Your task to perform on an android device: open device folders in google photos Image 0: 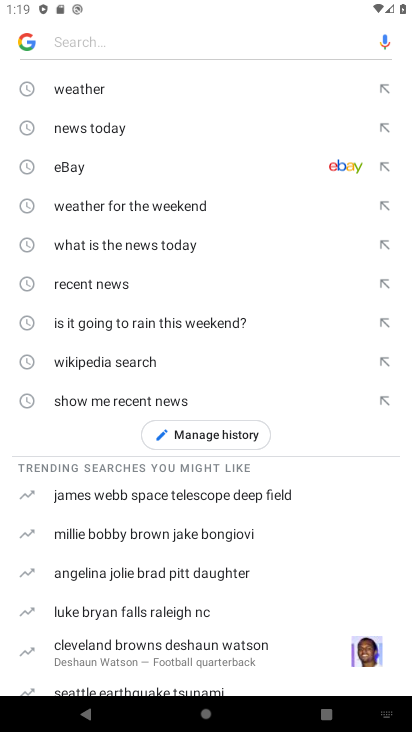
Step 0: press home button
Your task to perform on an android device: open device folders in google photos Image 1: 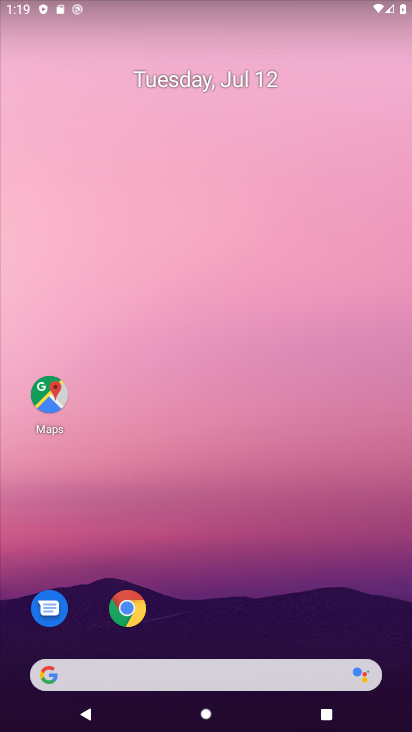
Step 1: drag from (243, 630) to (240, 17)
Your task to perform on an android device: open device folders in google photos Image 2: 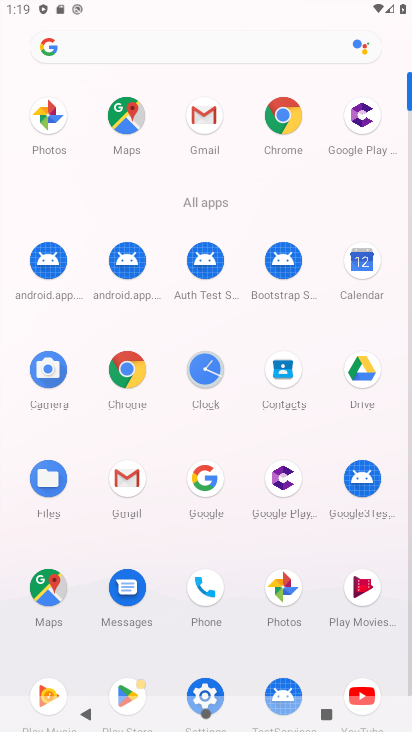
Step 2: click (284, 587)
Your task to perform on an android device: open device folders in google photos Image 3: 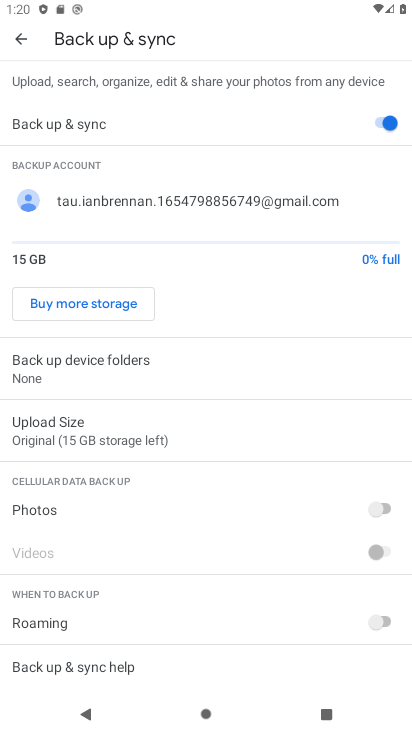
Step 3: click (27, 41)
Your task to perform on an android device: open device folders in google photos Image 4: 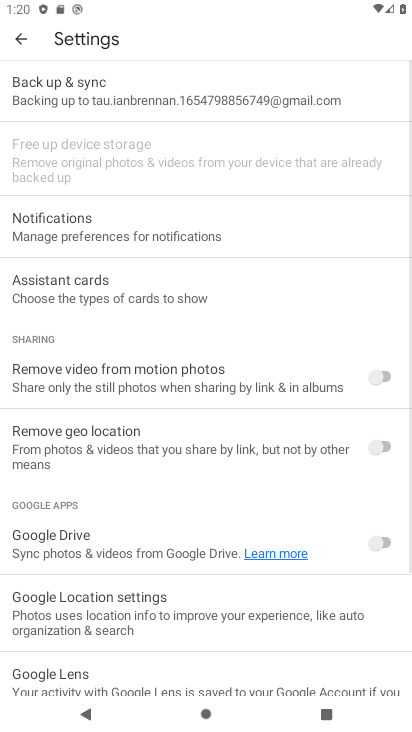
Step 4: press home button
Your task to perform on an android device: open device folders in google photos Image 5: 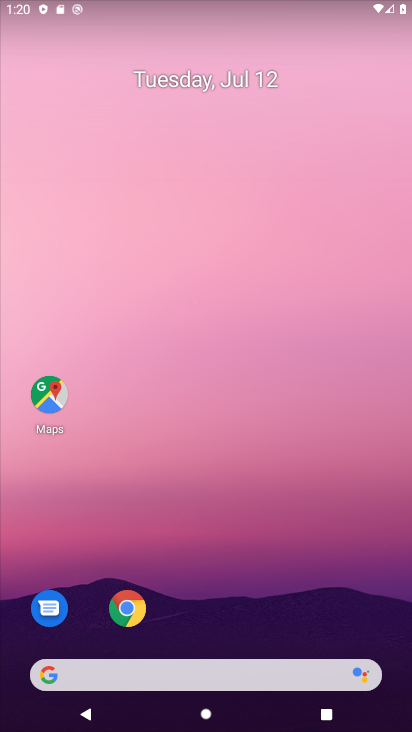
Step 5: drag from (230, 600) to (165, 5)
Your task to perform on an android device: open device folders in google photos Image 6: 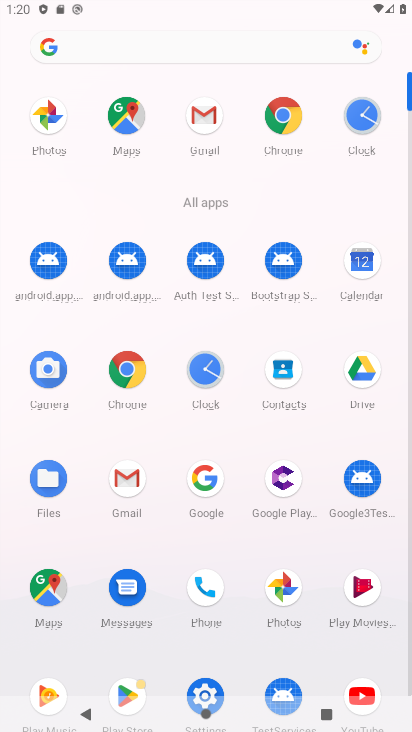
Step 6: click (284, 586)
Your task to perform on an android device: open device folders in google photos Image 7: 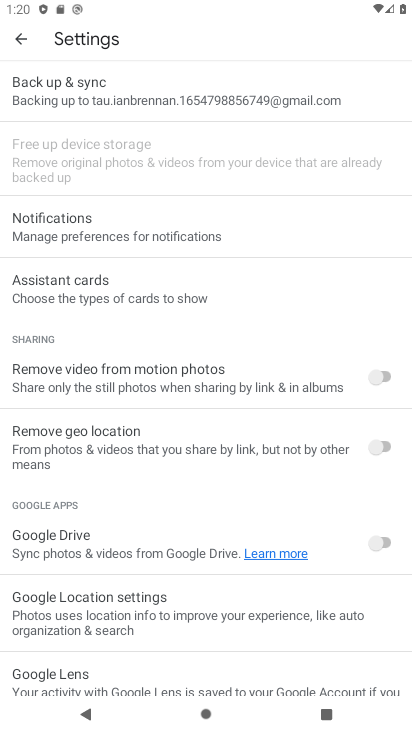
Step 7: drag from (203, 616) to (148, 308)
Your task to perform on an android device: open device folders in google photos Image 8: 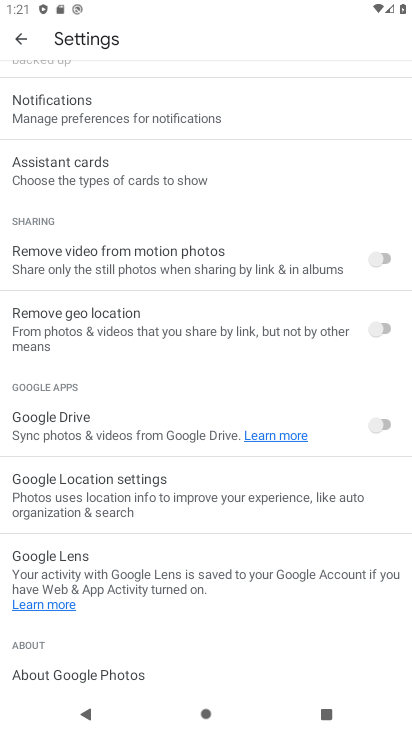
Step 8: click (21, 32)
Your task to perform on an android device: open device folders in google photos Image 9: 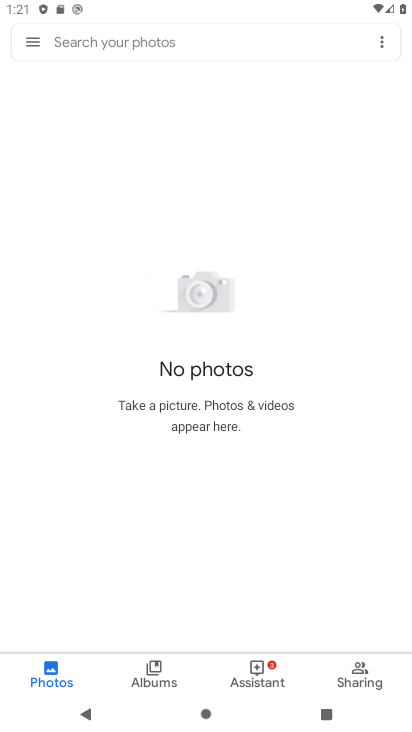
Step 9: click (42, 48)
Your task to perform on an android device: open device folders in google photos Image 10: 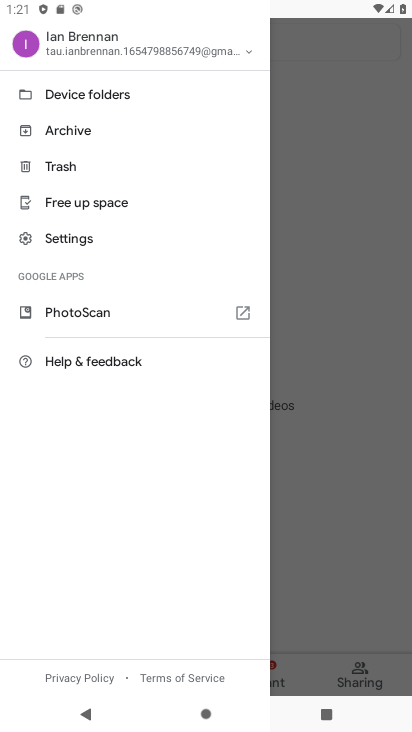
Step 10: click (112, 87)
Your task to perform on an android device: open device folders in google photos Image 11: 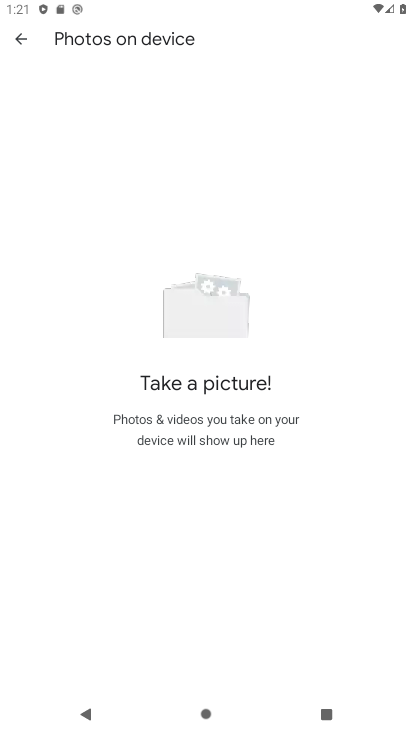
Step 11: task complete